Your task to perform on an android device: Open location settings Image 0: 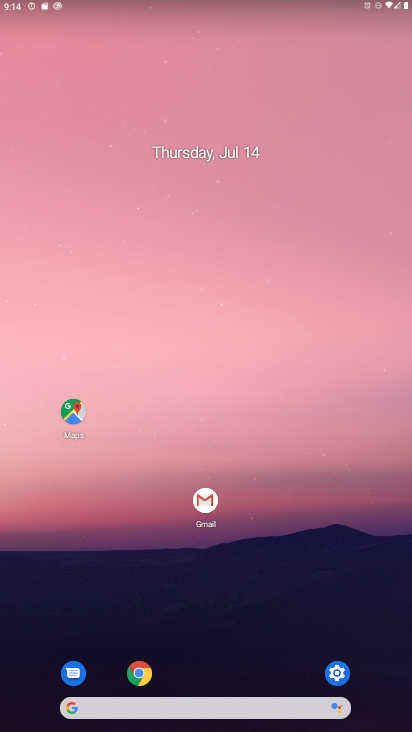
Step 0: press home button
Your task to perform on an android device: Open location settings Image 1: 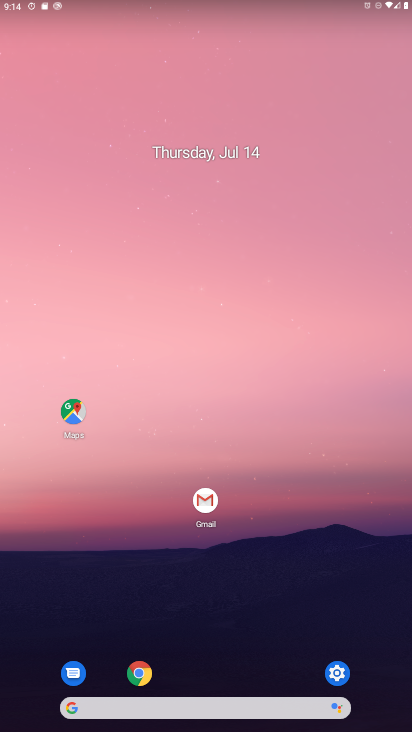
Step 1: click (348, 665)
Your task to perform on an android device: Open location settings Image 2: 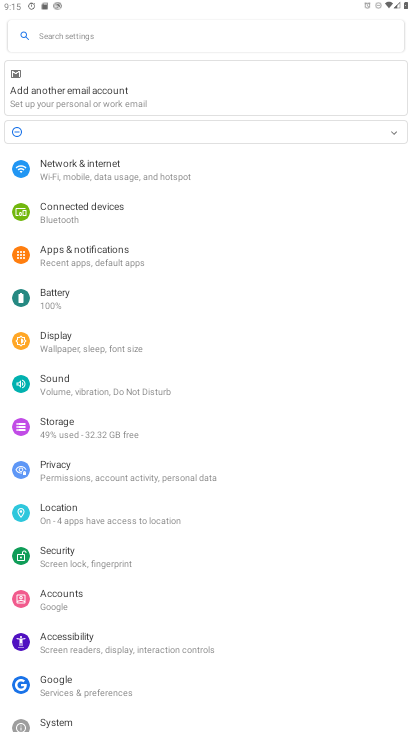
Step 2: click (76, 509)
Your task to perform on an android device: Open location settings Image 3: 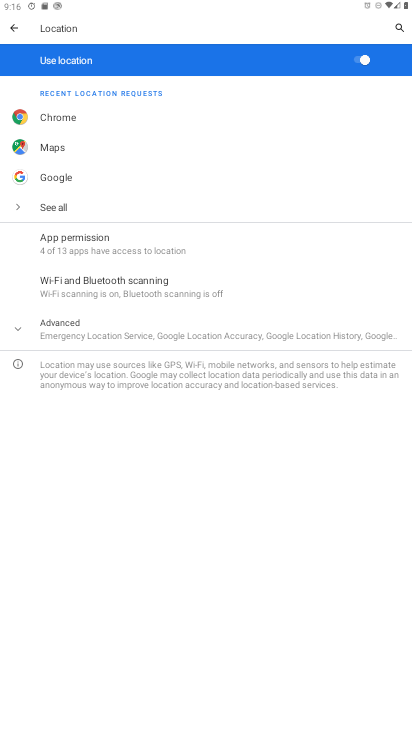
Step 3: task complete